Your task to perform on an android device: Open CNN.com Image 0: 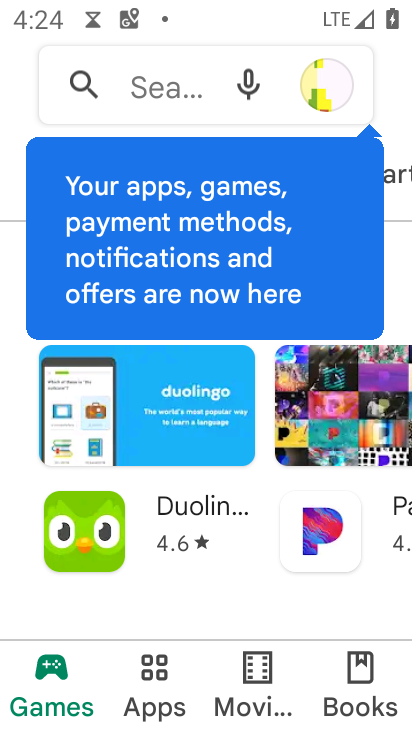
Step 0: press home button
Your task to perform on an android device: Open CNN.com Image 1: 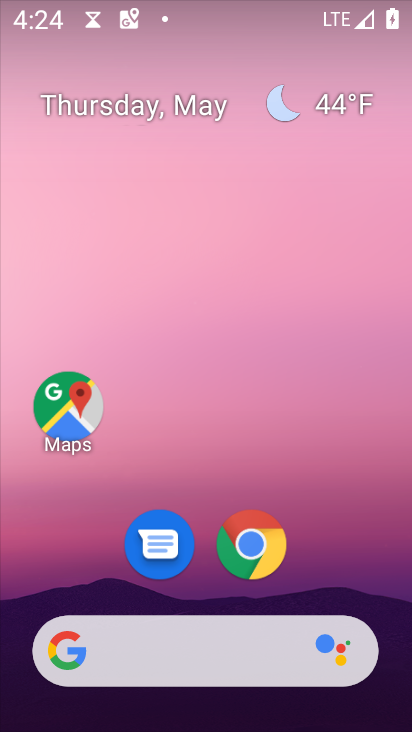
Step 1: click (238, 544)
Your task to perform on an android device: Open CNN.com Image 2: 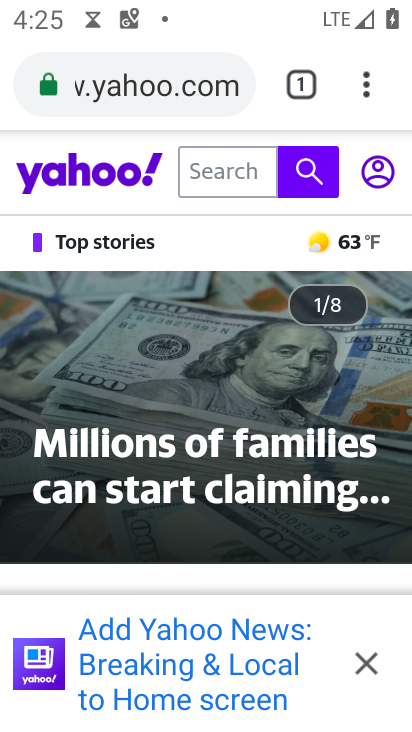
Step 2: click (181, 98)
Your task to perform on an android device: Open CNN.com Image 3: 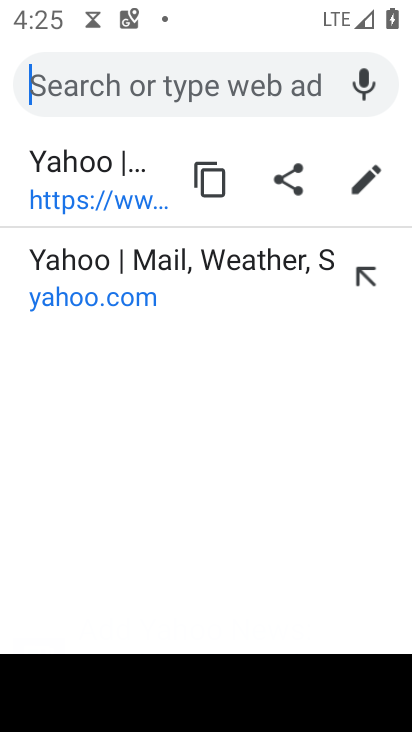
Step 3: type "CNN.com"
Your task to perform on an android device: Open CNN.com Image 4: 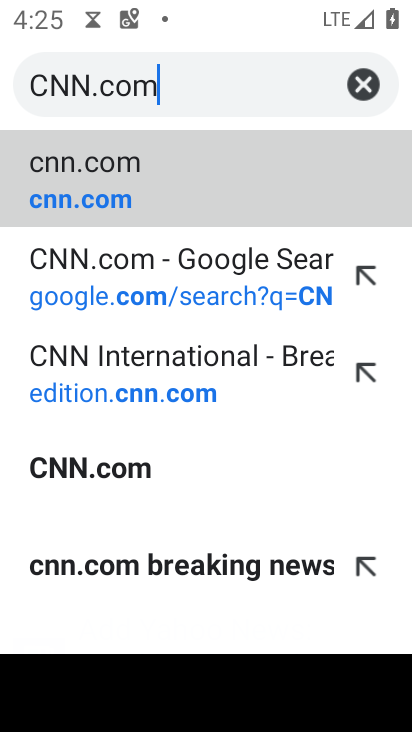
Step 4: click (69, 188)
Your task to perform on an android device: Open CNN.com Image 5: 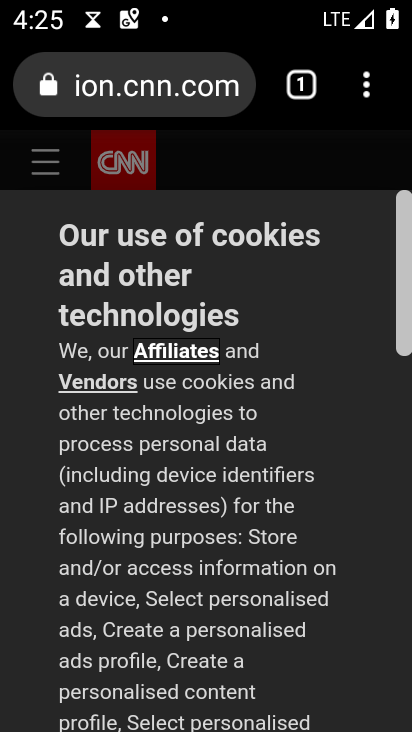
Step 5: task complete